Your task to perform on an android device: uninstall "Google Play Music" Image 0: 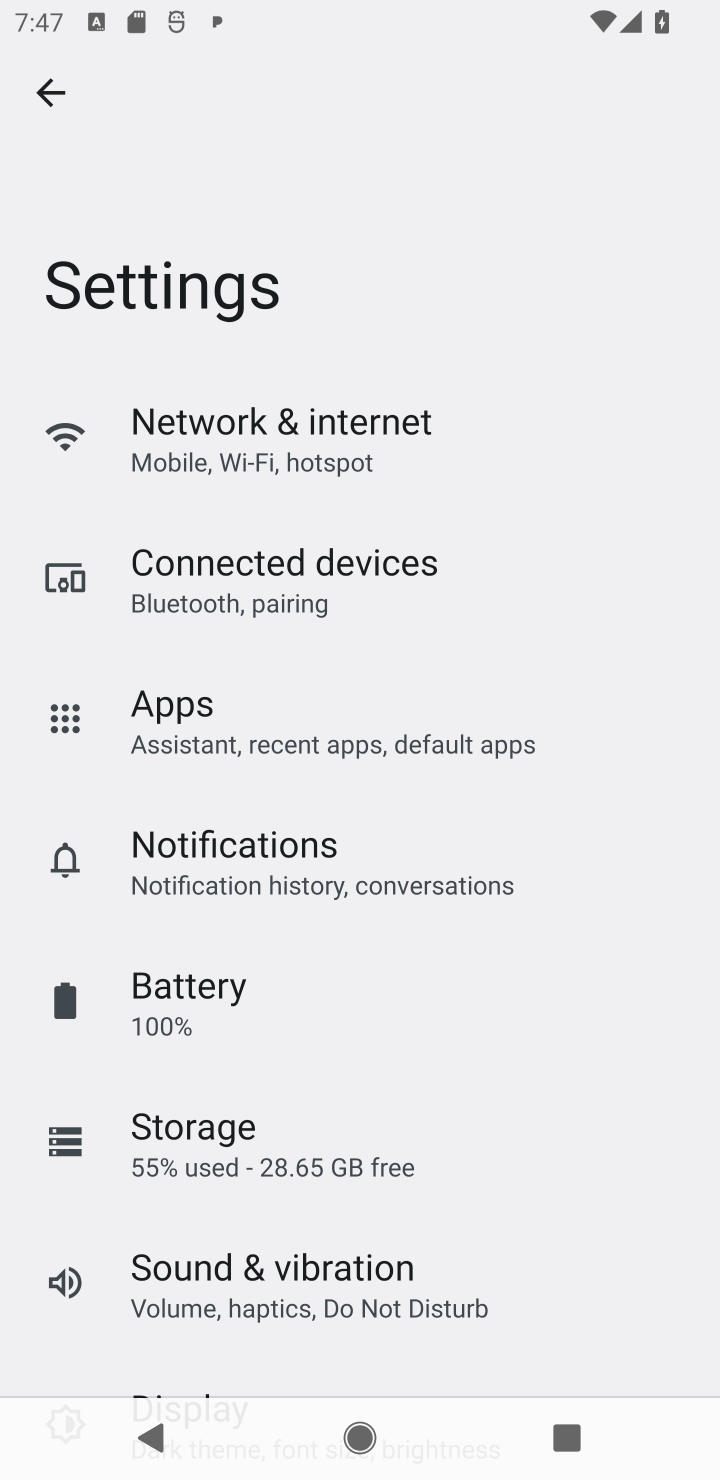
Step 0: press home button
Your task to perform on an android device: uninstall "Google Play Music" Image 1: 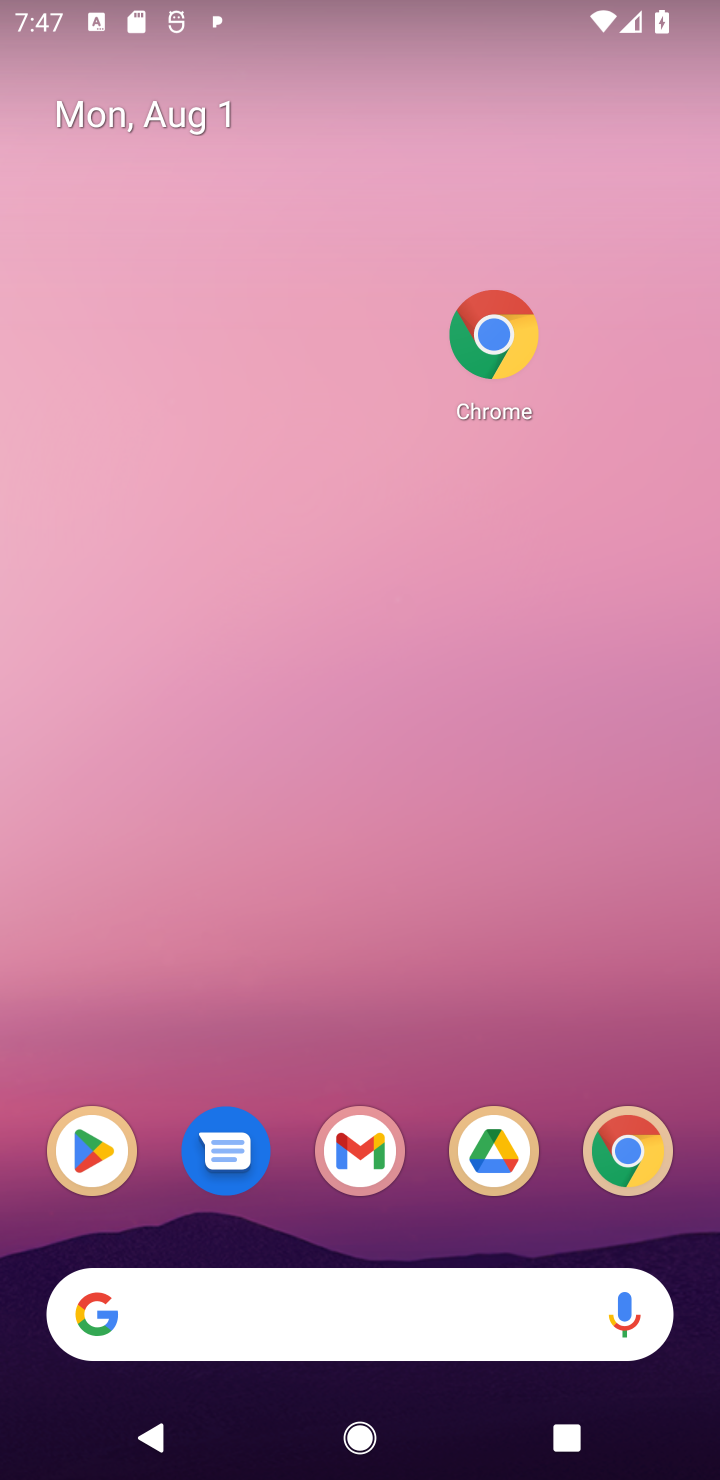
Step 1: click (97, 1167)
Your task to perform on an android device: uninstall "Google Play Music" Image 2: 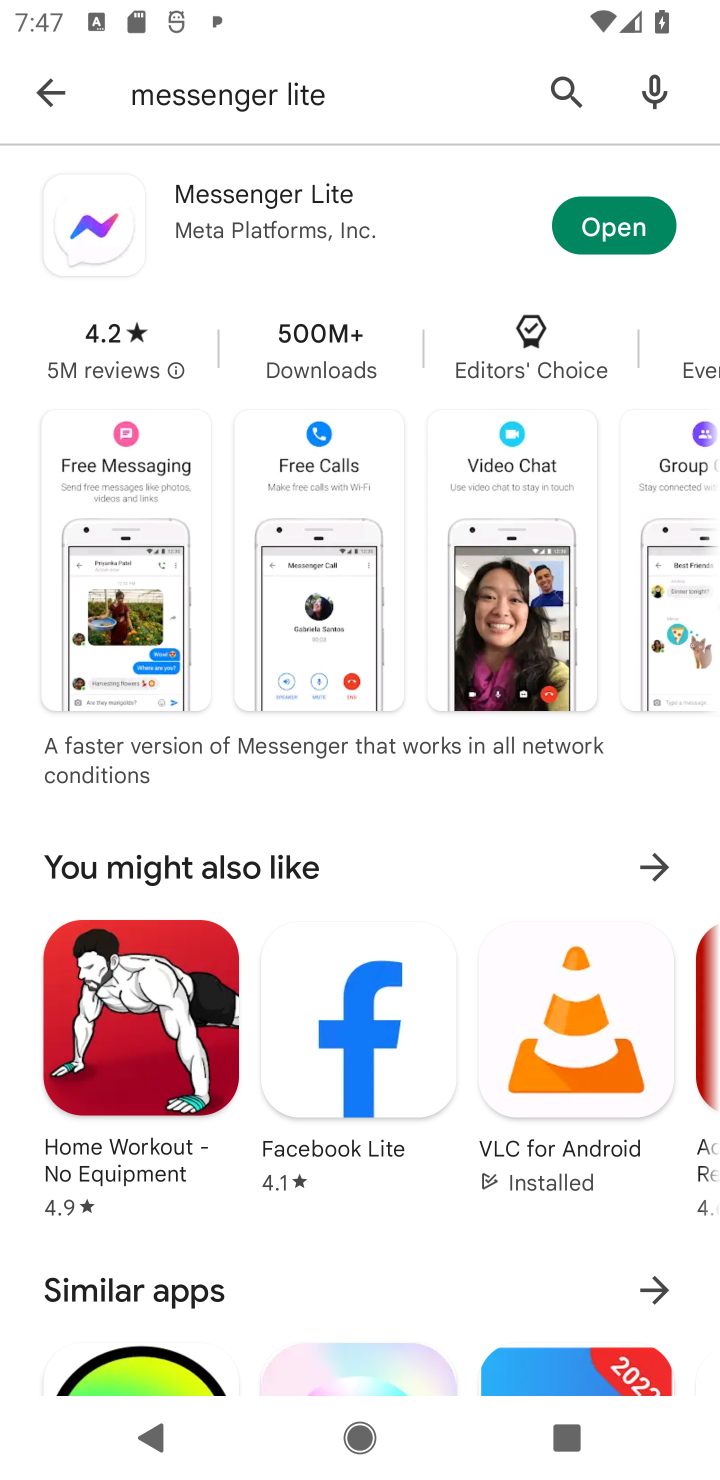
Step 2: click (563, 97)
Your task to perform on an android device: uninstall "Google Play Music" Image 3: 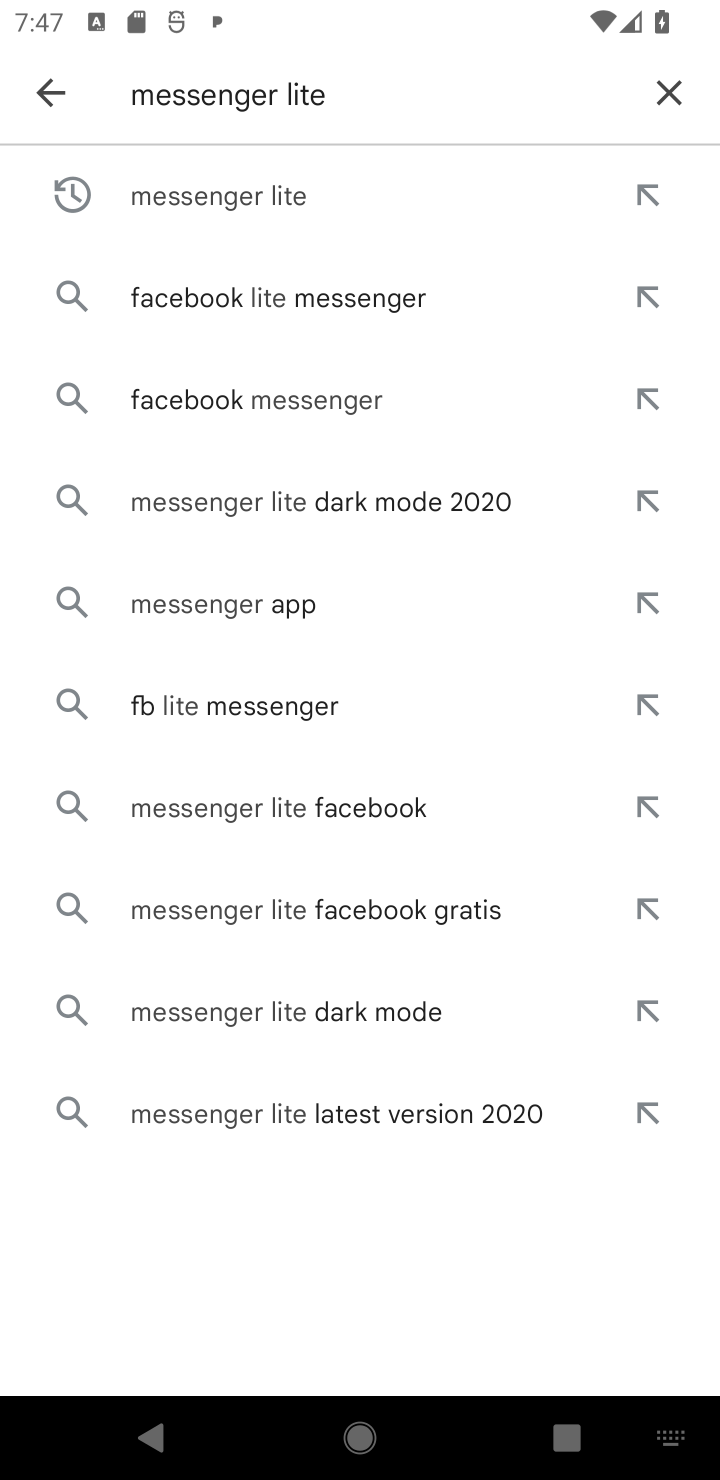
Step 3: click (666, 100)
Your task to perform on an android device: uninstall "Google Play Music" Image 4: 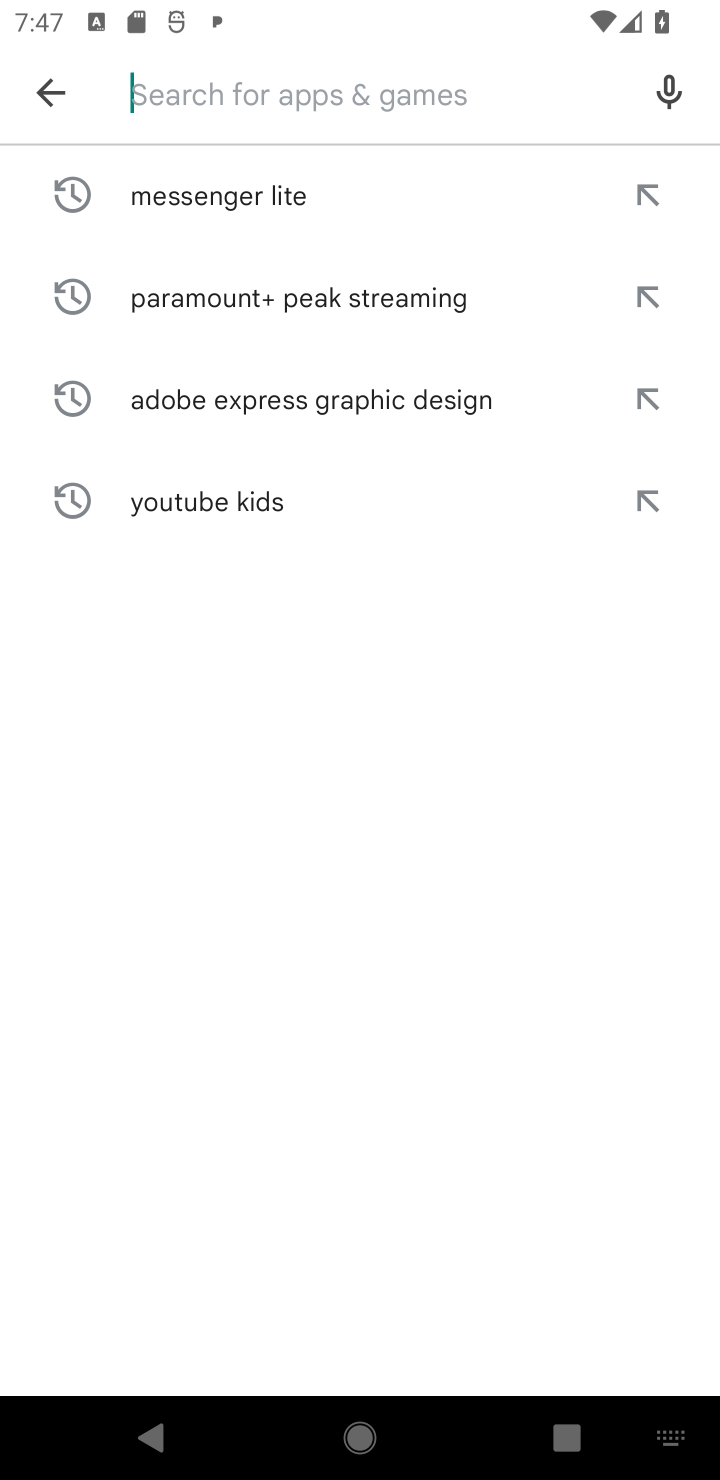
Step 4: type "Google Play Music"
Your task to perform on an android device: uninstall "Google Play Music" Image 5: 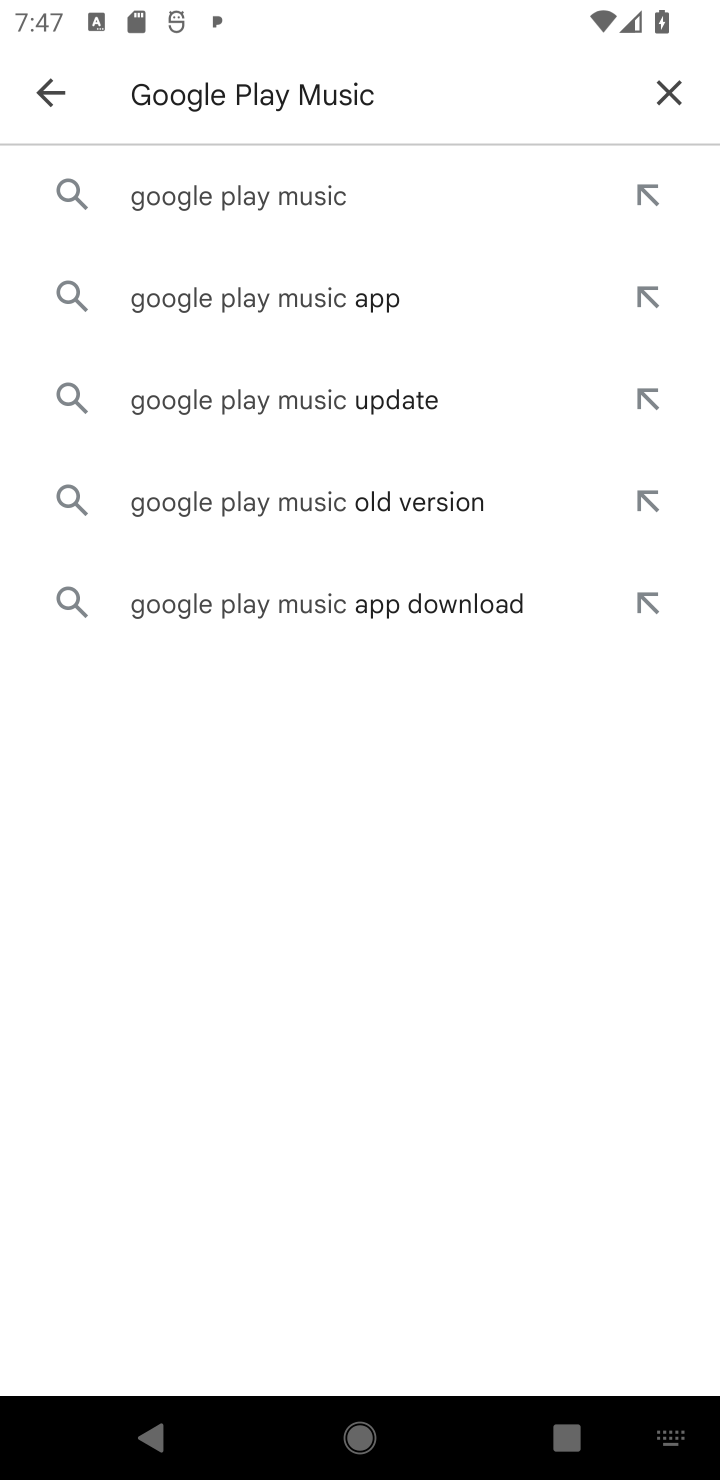
Step 5: click (270, 205)
Your task to perform on an android device: uninstall "Google Play Music" Image 6: 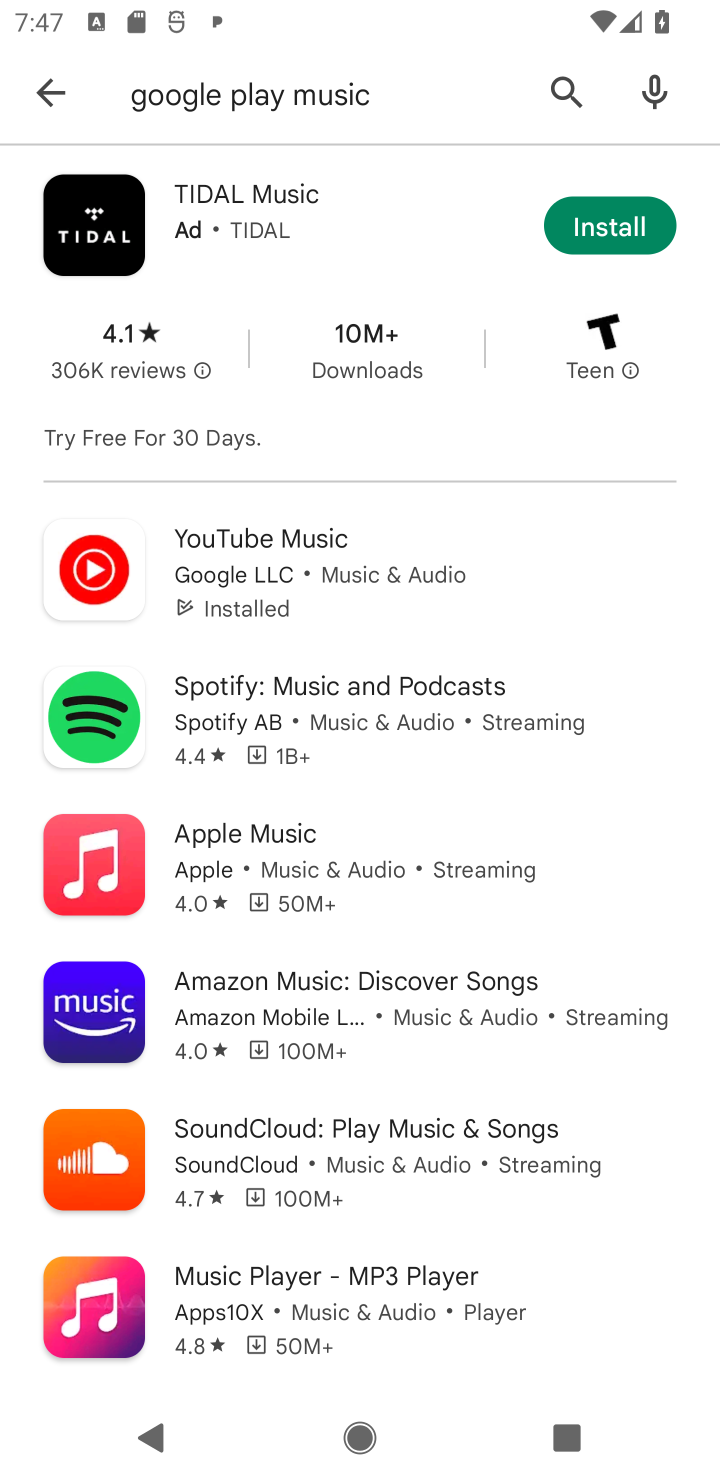
Step 6: task complete